Your task to perform on an android device: turn off improve location accuracy Image 0: 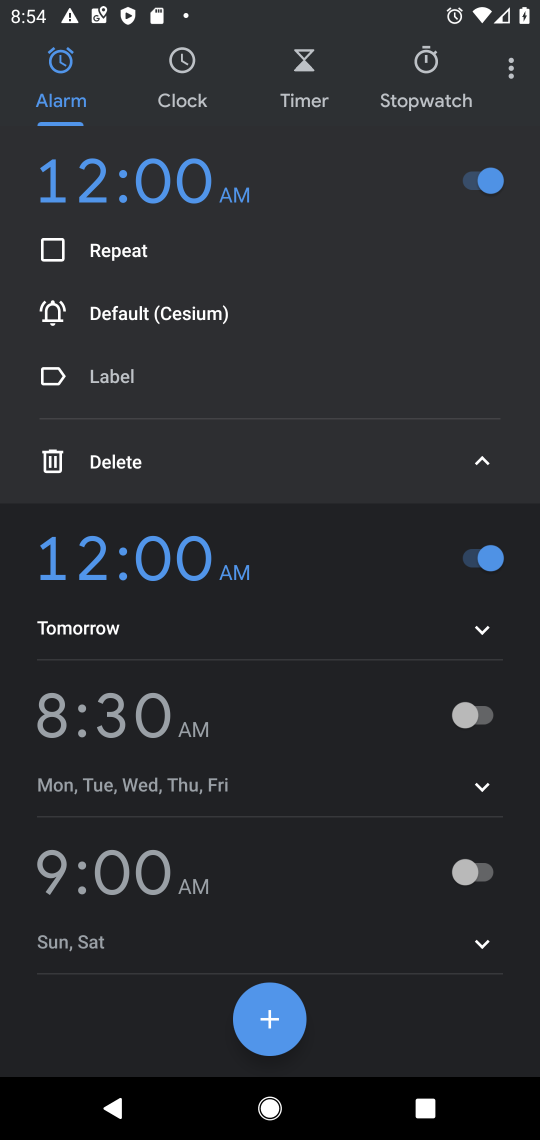
Step 0: press home button
Your task to perform on an android device: turn off improve location accuracy Image 1: 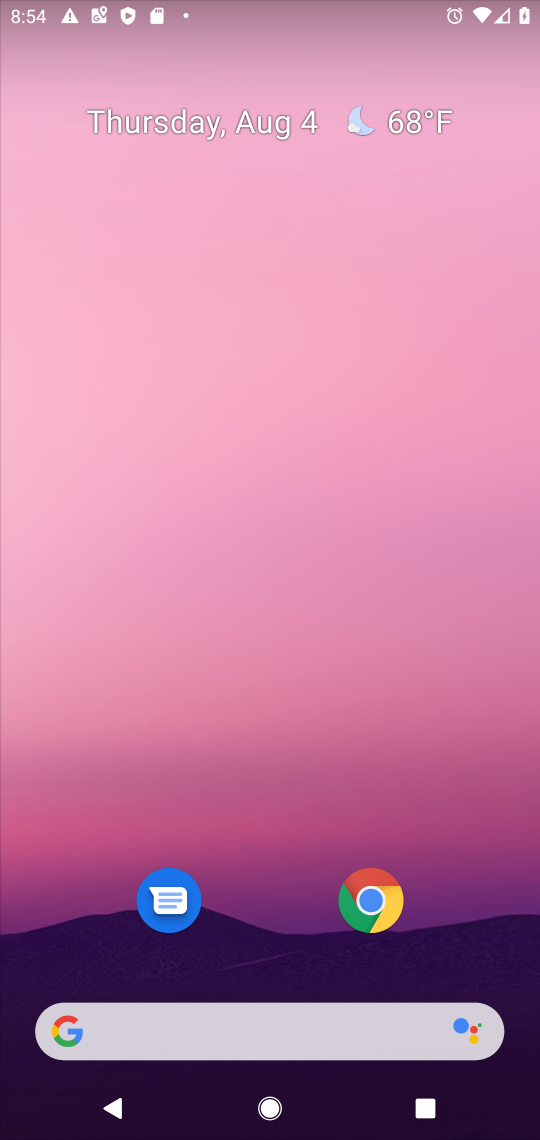
Step 1: drag from (221, 1023) to (266, 390)
Your task to perform on an android device: turn off improve location accuracy Image 2: 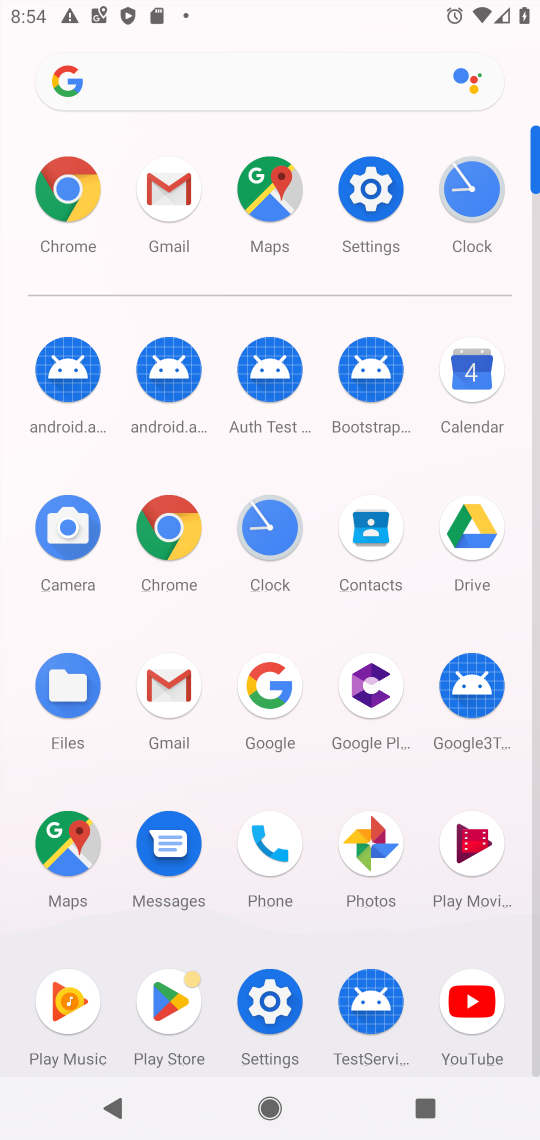
Step 2: click (368, 192)
Your task to perform on an android device: turn off improve location accuracy Image 3: 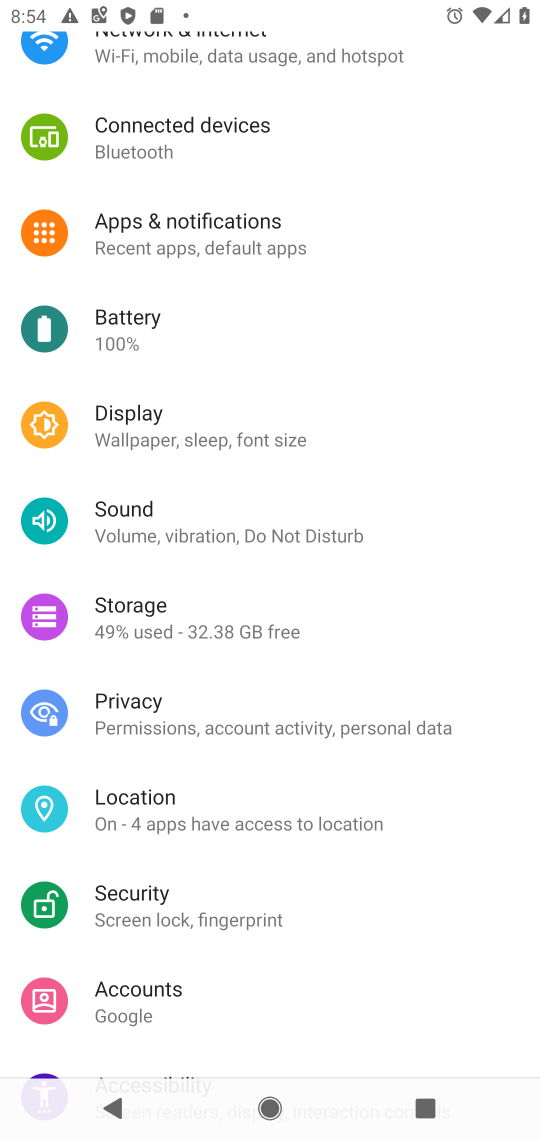
Step 3: click (195, 819)
Your task to perform on an android device: turn off improve location accuracy Image 4: 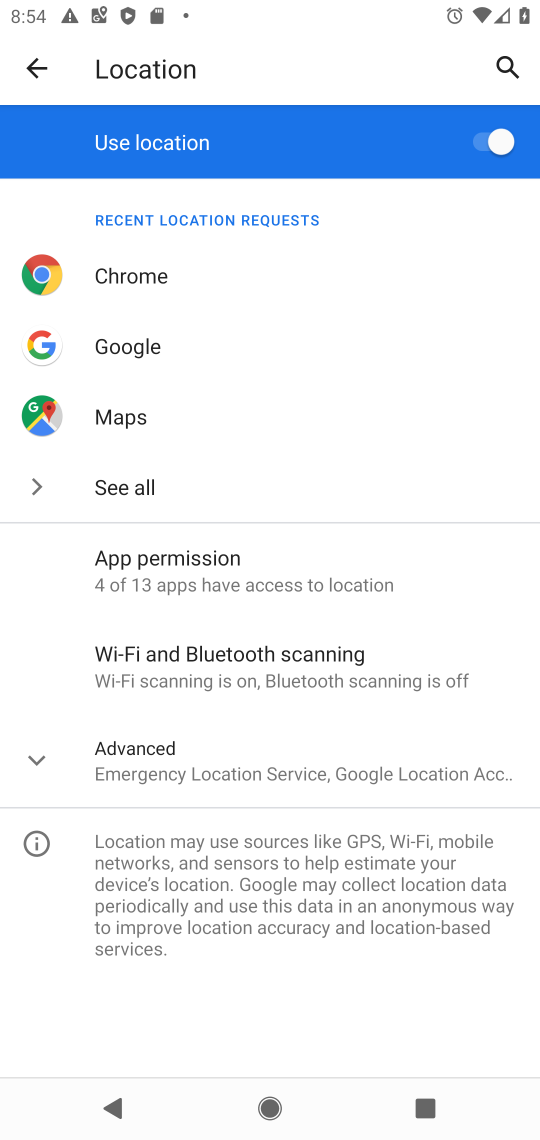
Step 4: click (213, 773)
Your task to perform on an android device: turn off improve location accuracy Image 5: 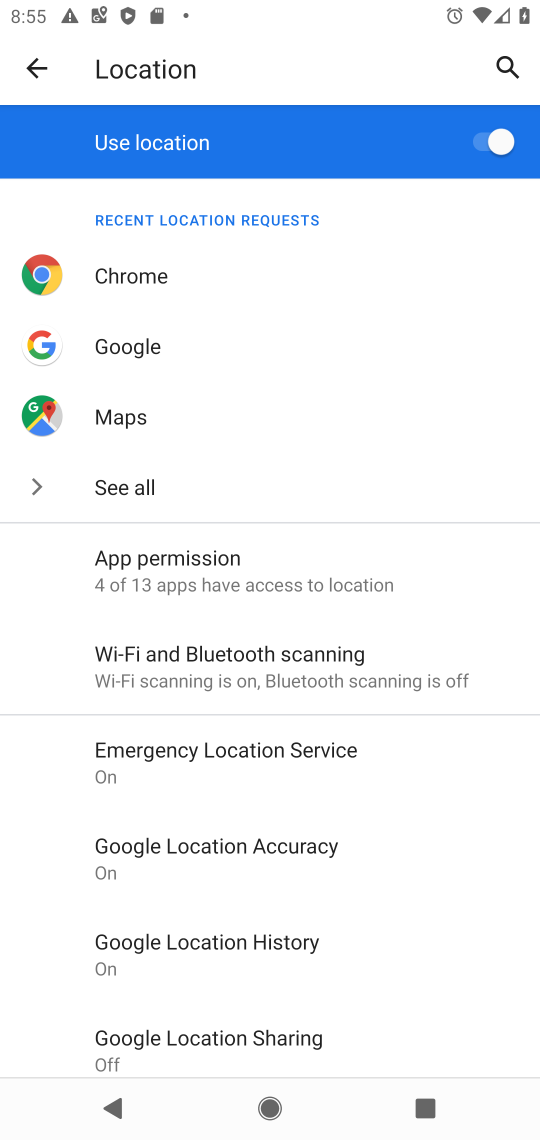
Step 5: click (217, 842)
Your task to perform on an android device: turn off improve location accuracy Image 6: 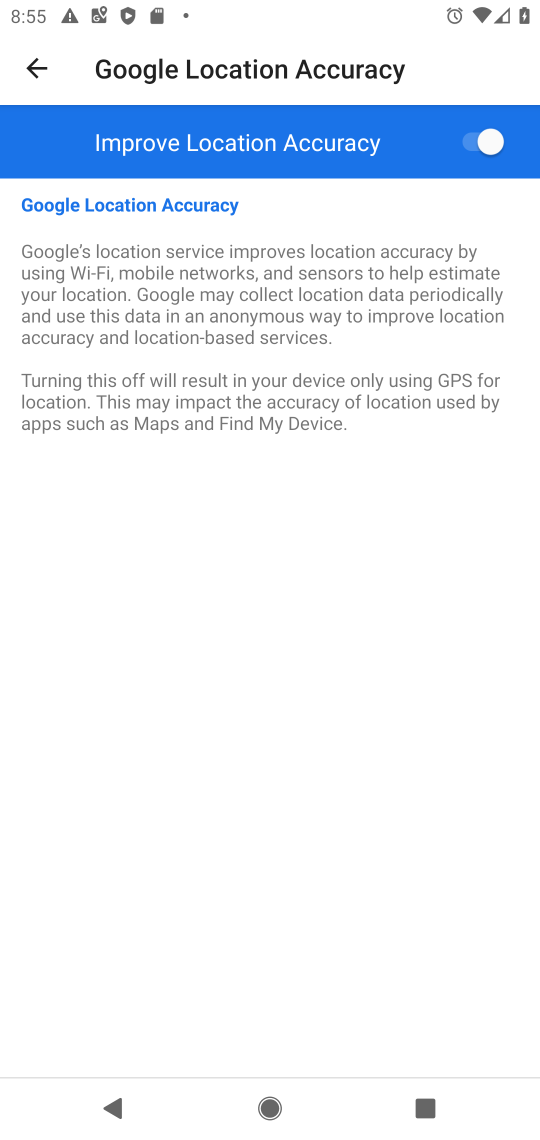
Step 6: click (469, 153)
Your task to perform on an android device: turn off improve location accuracy Image 7: 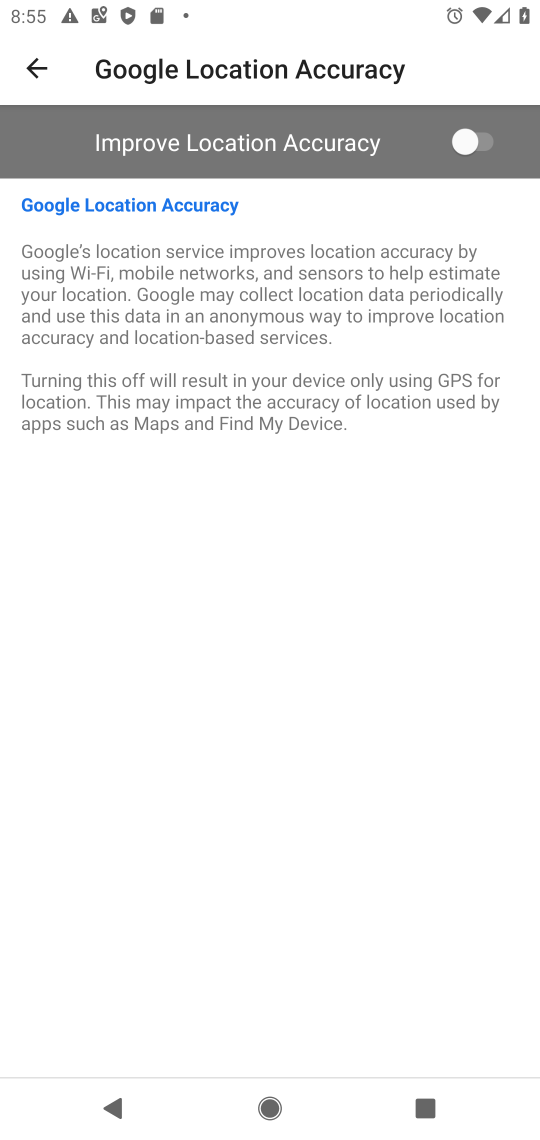
Step 7: task complete